Your task to perform on an android device: search for starred emails in the gmail app Image 0: 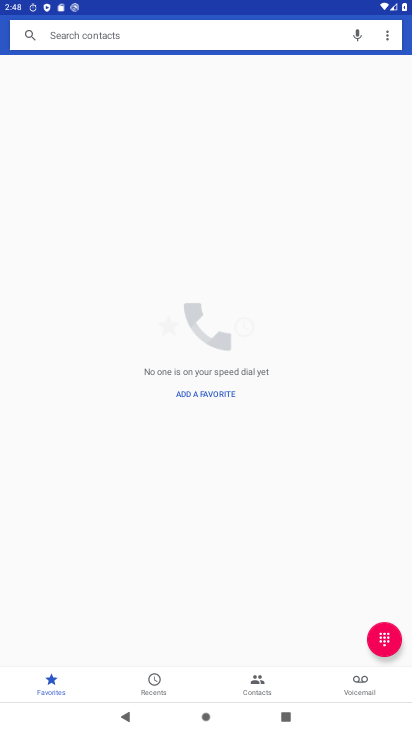
Step 0: press home button
Your task to perform on an android device: search for starred emails in the gmail app Image 1: 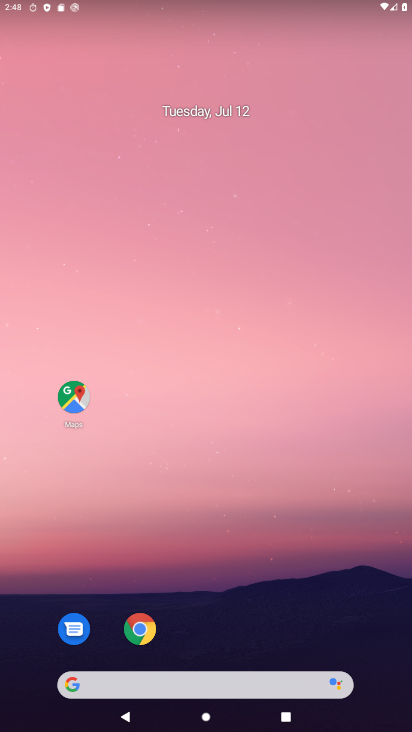
Step 1: drag from (217, 648) to (235, 181)
Your task to perform on an android device: search for starred emails in the gmail app Image 2: 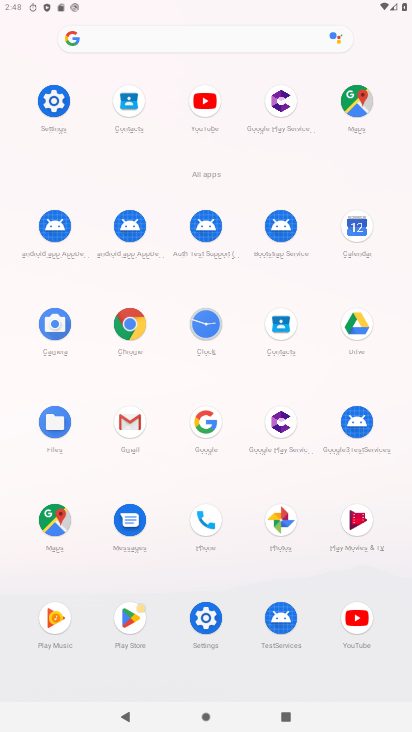
Step 2: click (136, 420)
Your task to perform on an android device: search for starred emails in the gmail app Image 3: 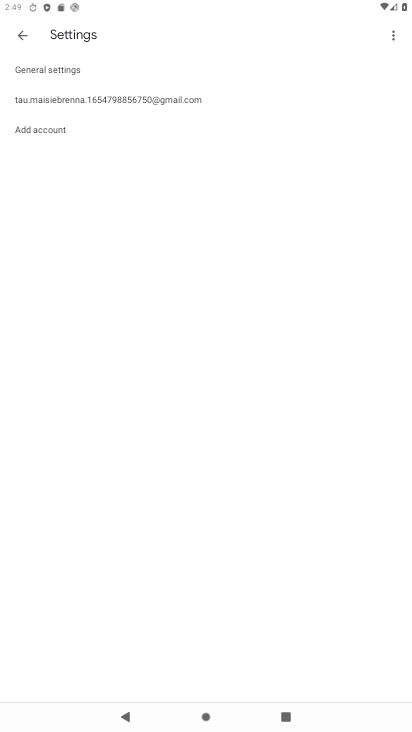
Step 3: click (18, 35)
Your task to perform on an android device: search for starred emails in the gmail app Image 4: 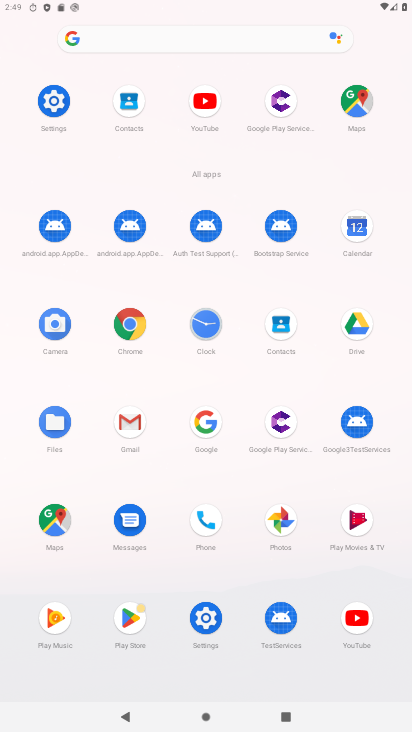
Step 4: click (127, 415)
Your task to perform on an android device: search for starred emails in the gmail app Image 5: 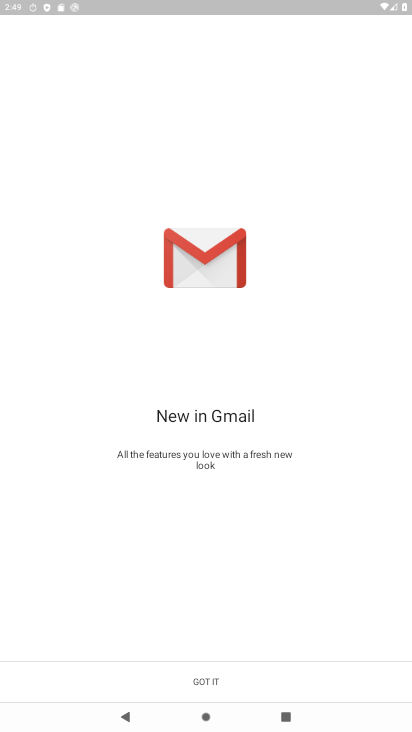
Step 5: click (234, 665)
Your task to perform on an android device: search for starred emails in the gmail app Image 6: 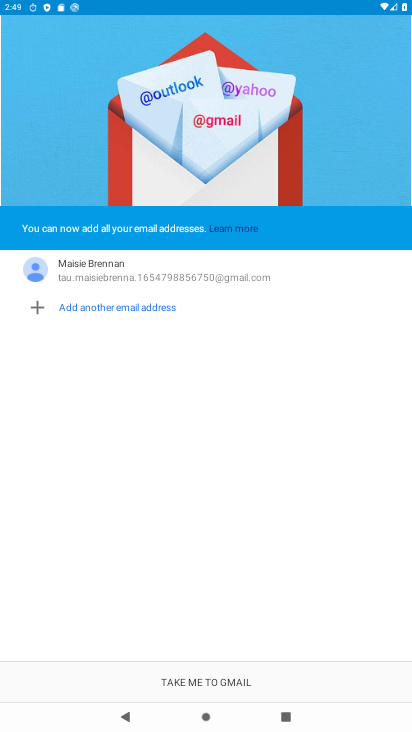
Step 6: click (222, 674)
Your task to perform on an android device: search for starred emails in the gmail app Image 7: 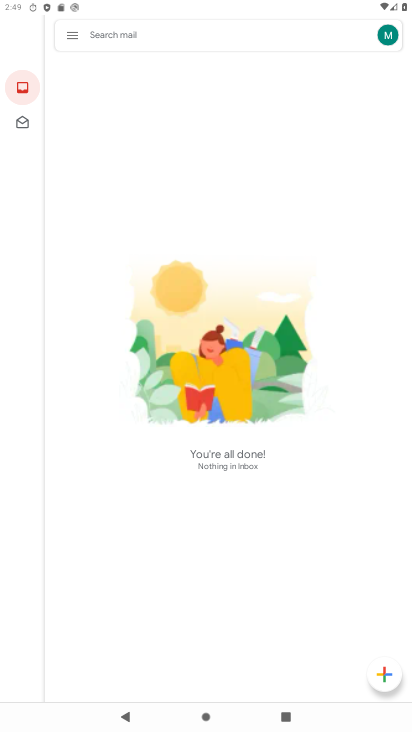
Step 7: click (64, 34)
Your task to perform on an android device: search for starred emails in the gmail app Image 8: 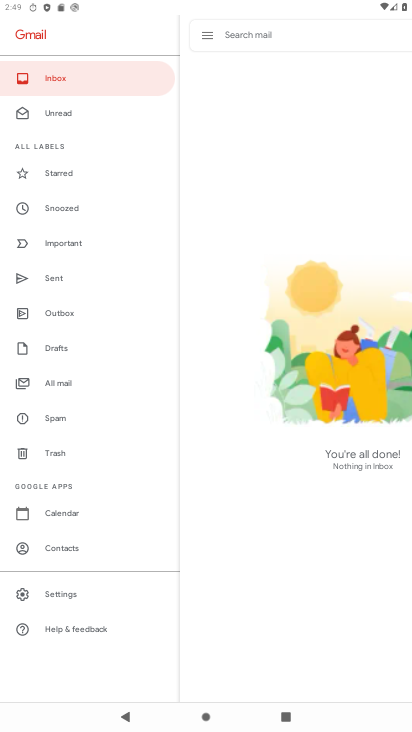
Step 8: click (43, 177)
Your task to perform on an android device: search for starred emails in the gmail app Image 9: 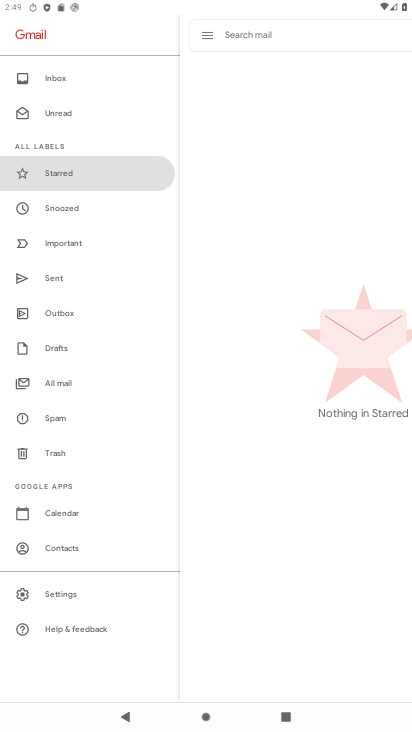
Step 9: click (59, 167)
Your task to perform on an android device: search for starred emails in the gmail app Image 10: 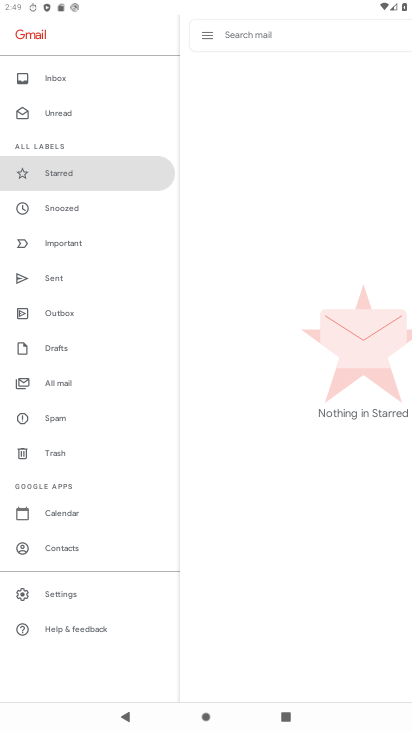
Step 10: task complete